Your task to perform on an android device: Open settings on Google Maps Image 0: 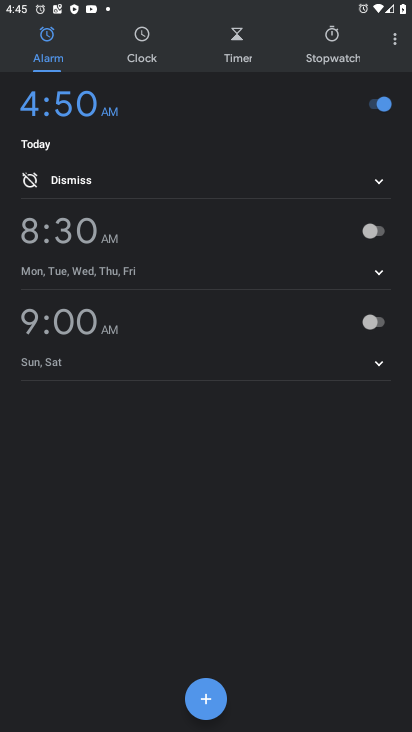
Step 0: press home button
Your task to perform on an android device: Open settings on Google Maps Image 1: 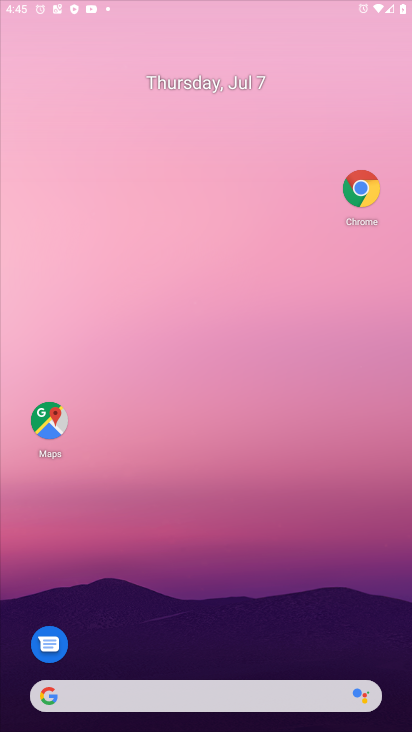
Step 1: drag from (321, 546) to (165, 717)
Your task to perform on an android device: Open settings on Google Maps Image 2: 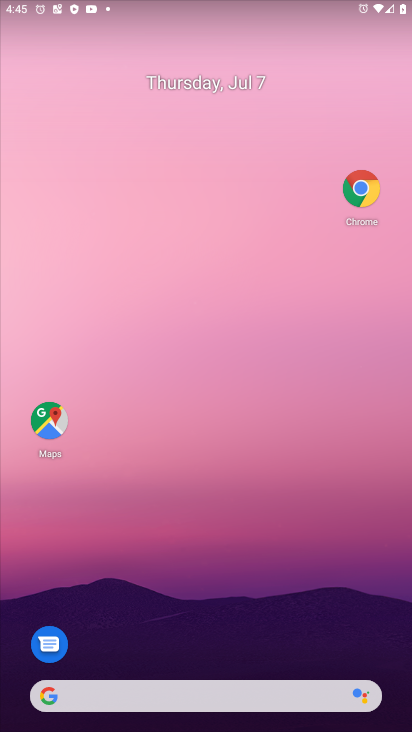
Step 2: click (43, 380)
Your task to perform on an android device: Open settings on Google Maps Image 3: 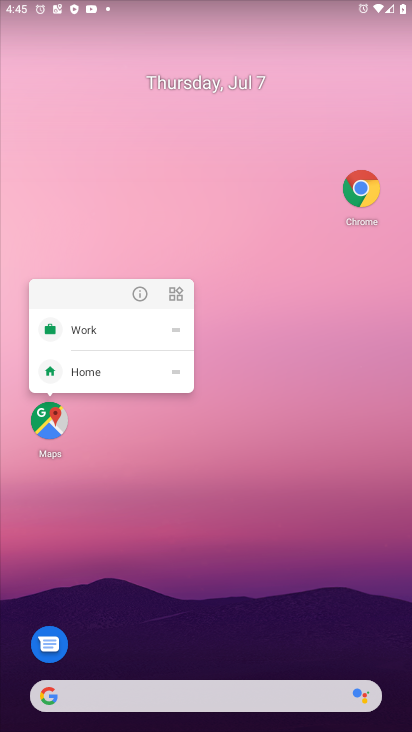
Step 3: click (63, 440)
Your task to perform on an android device: Open settings on Google Maps Image 4: 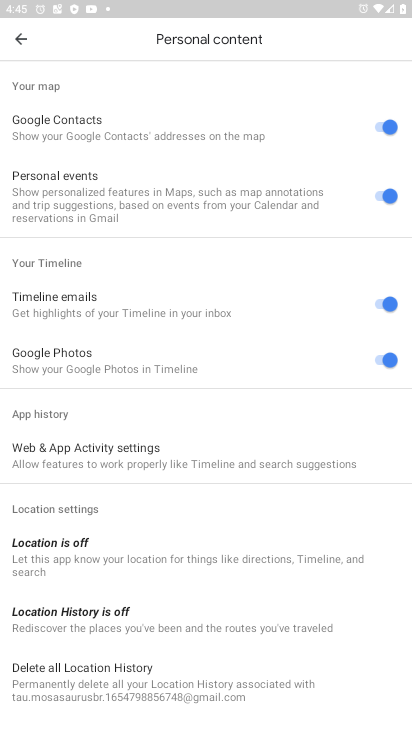
Step 4: task complete